Your task to perform on an android device: When is my next appointment? Image 0: 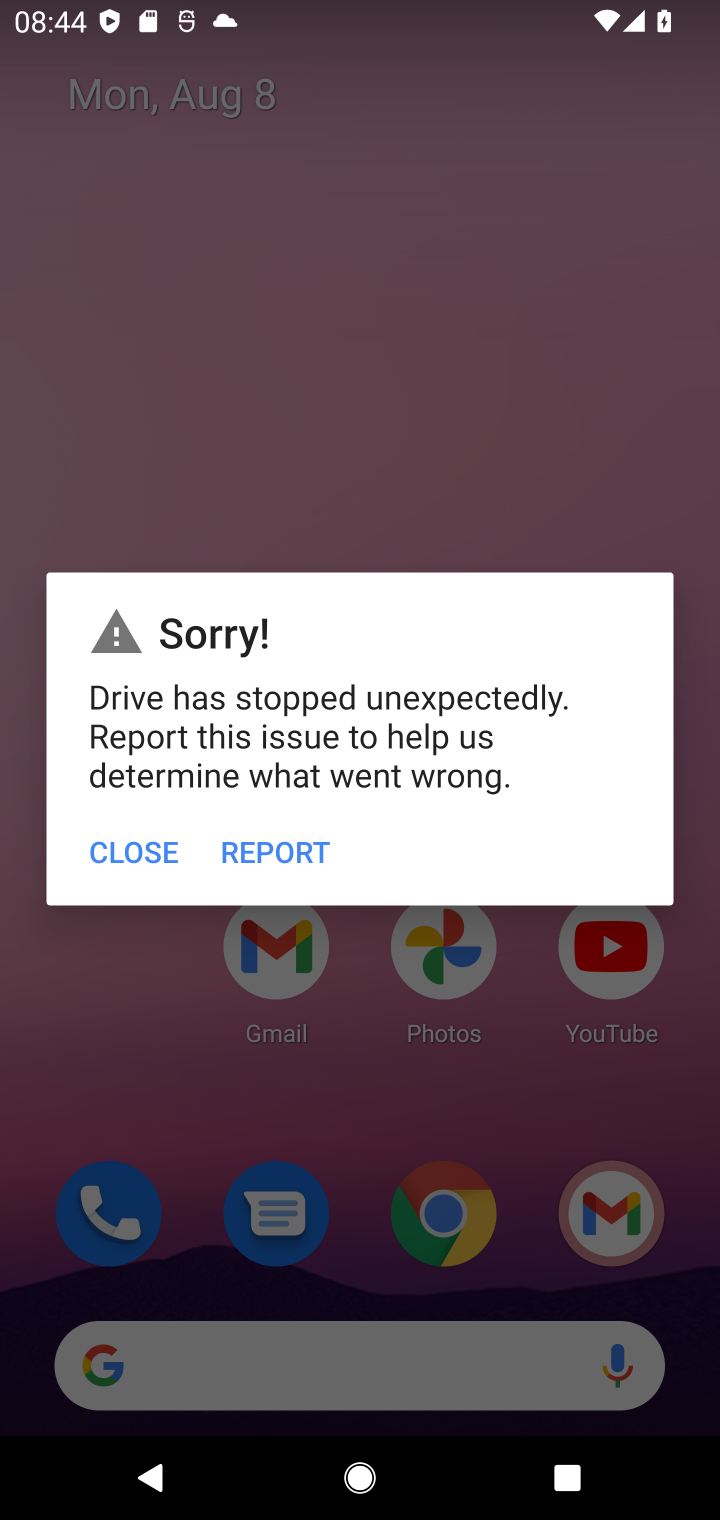
Step 0: click (170, 870)
Your task to perform on an android device: When is my next appointment? Image 1: 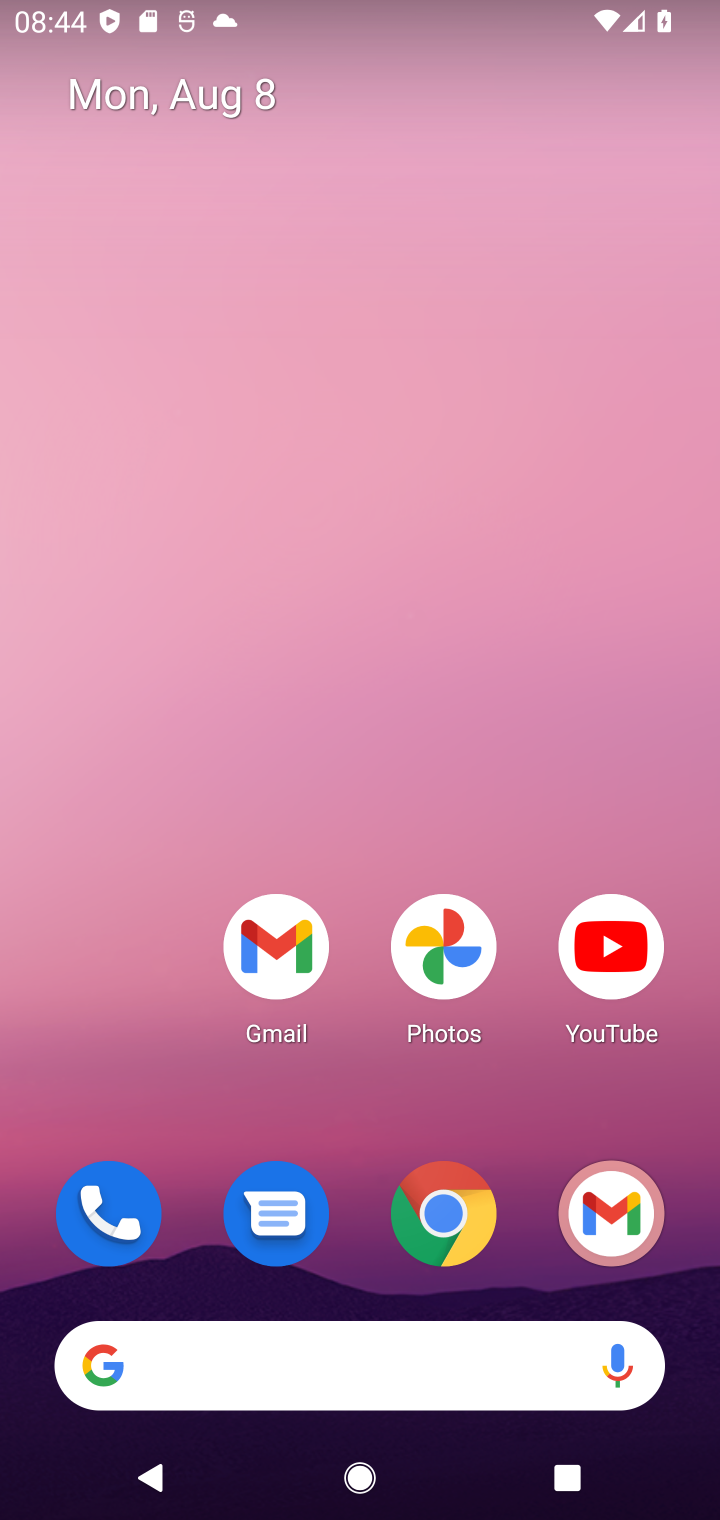
Step 1: click (448, 22)
Your task to perform on an android device: When is my next appointment? Image 2: 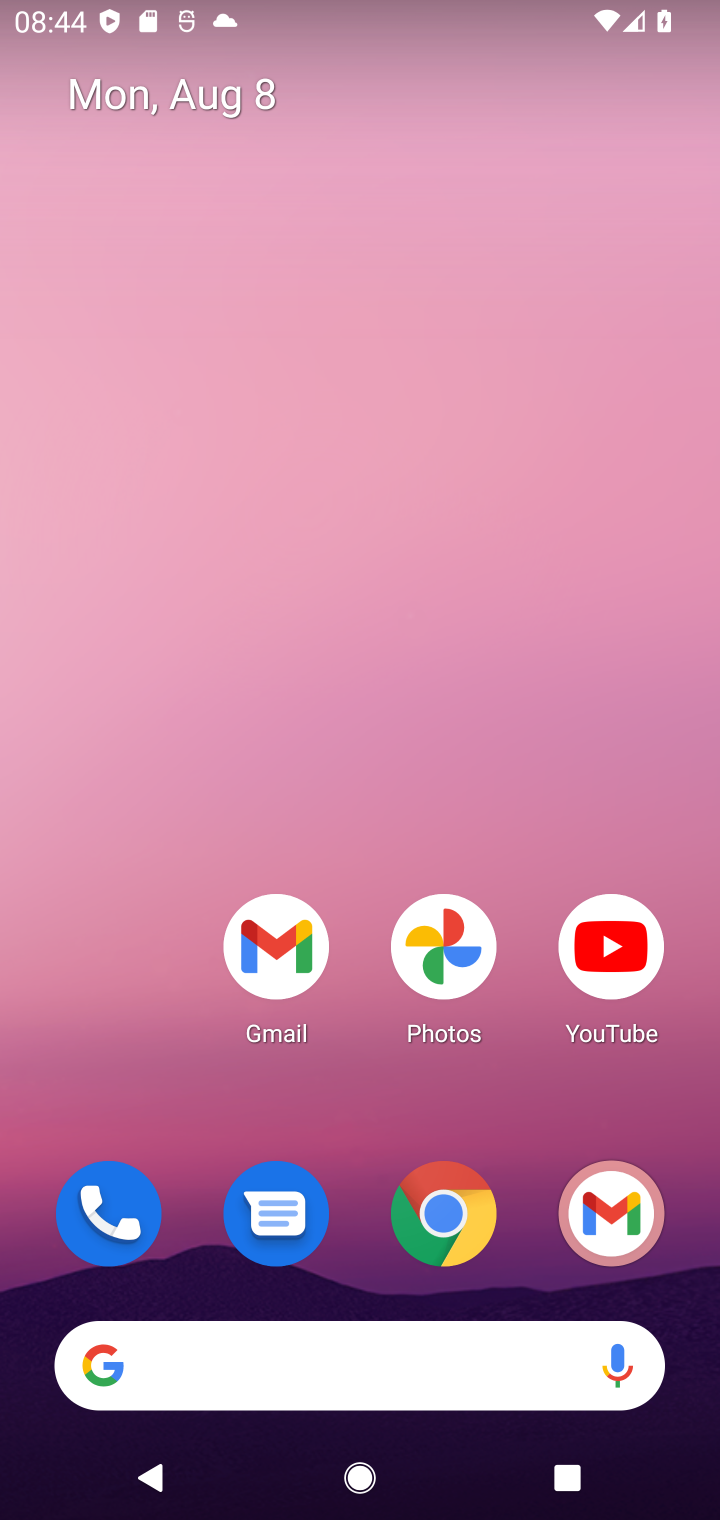
Step 2: click (526, 1)
Your task to perform on an android device: When is my next appointment? Image 3: 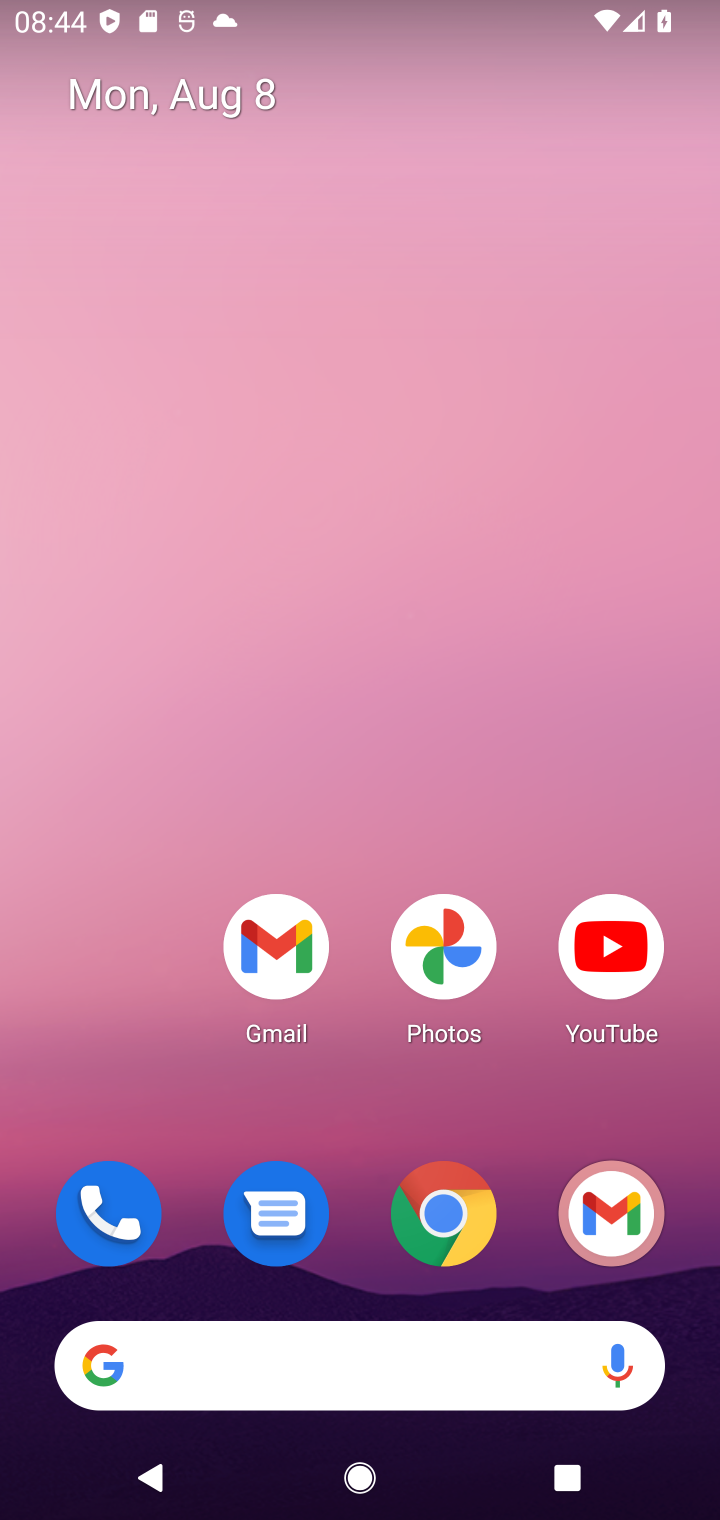
Step 3: task complete